Your task to perform on an android device: Open Google Image 0: 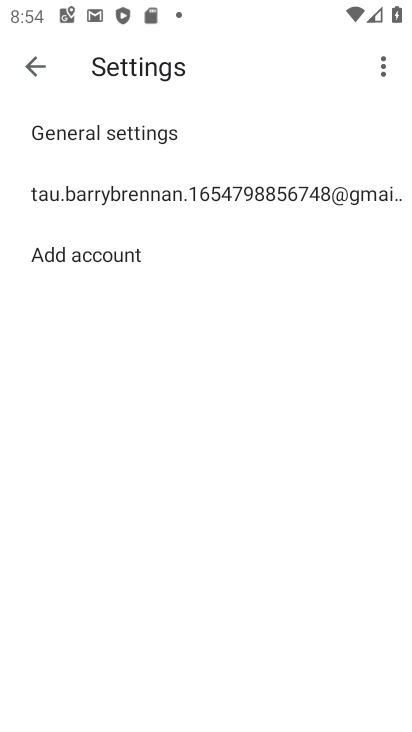
Step 0: press home button
Your task to perform on an android device: Open Google Image 1: 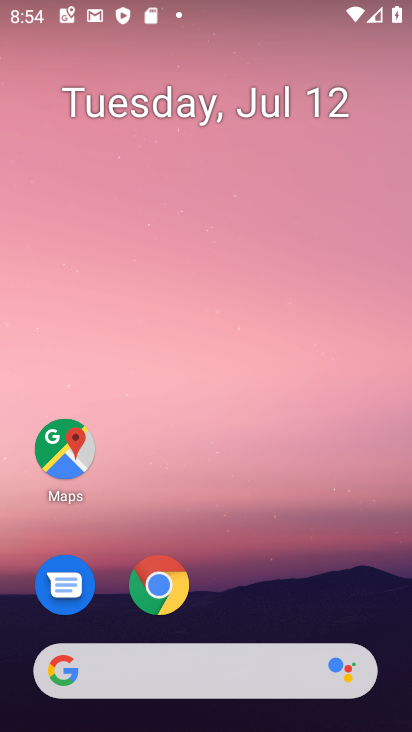
Step 1: click (222, 671)
Your task to perform on an android device: Open Google Image 2: 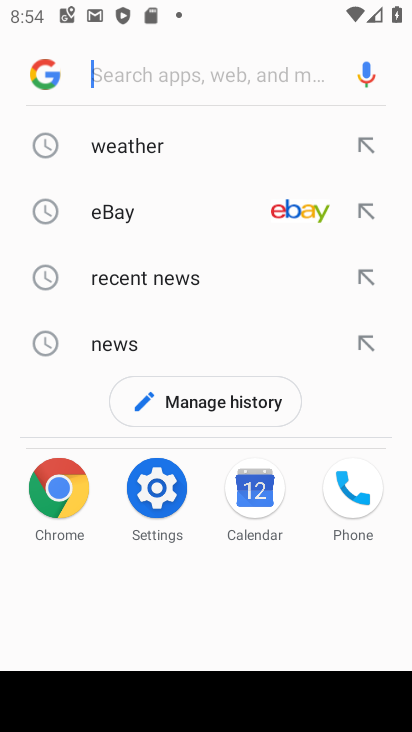
Step 2: click (46, 84)
Your task to perform on an android device: Open Google Image 3: 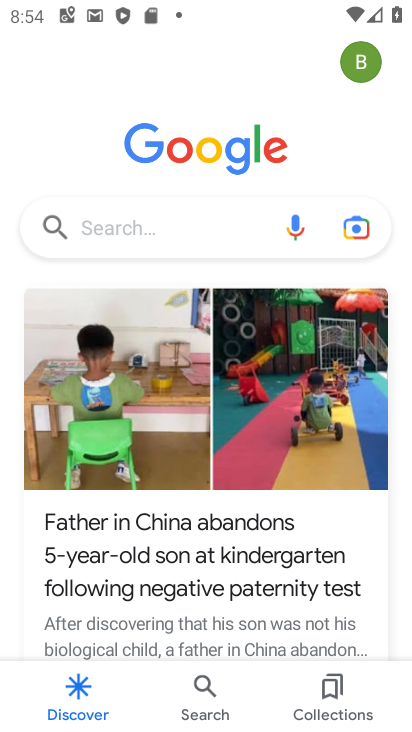
Step 3: task complete